Your task to perform on an android device: Open display settings Image 0: 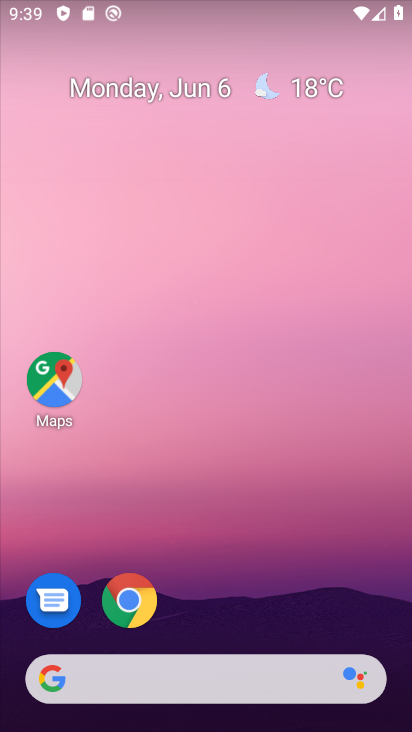
Step 0: drag from (289, 563) to (223, 19)
Your task to perform on an android device: Open display settings Image 1: 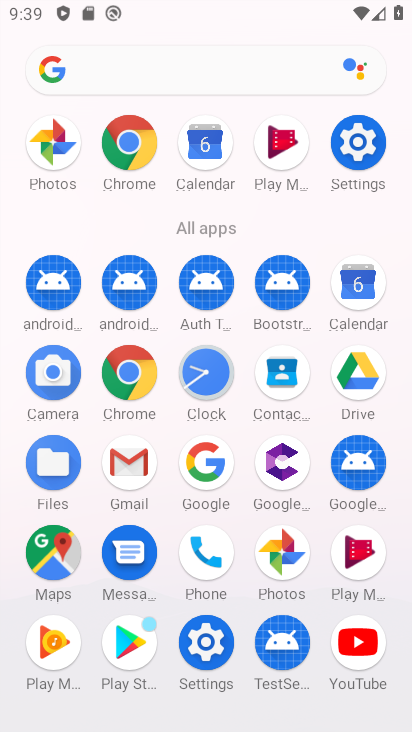
Step 1: click (200, 639)
Your task to perform on an android device: Open display settings Image 2: 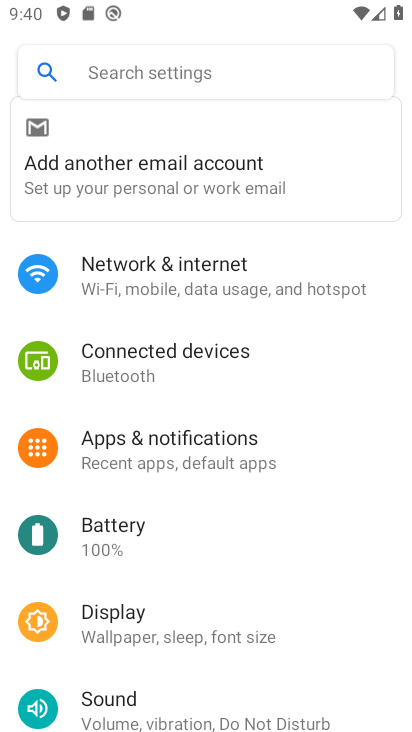
Step 2: click (136, 625)
Your task to perform on an android device: Open display settings Image 3: 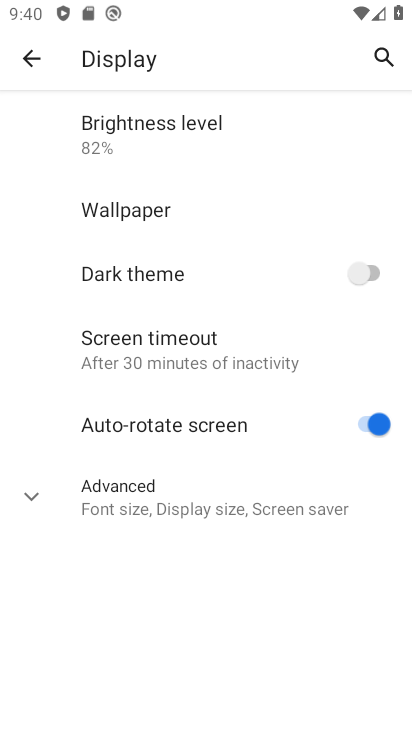
Step 3: click (54, 502)
Your task to perform on an android device: Open display settings Image 4: 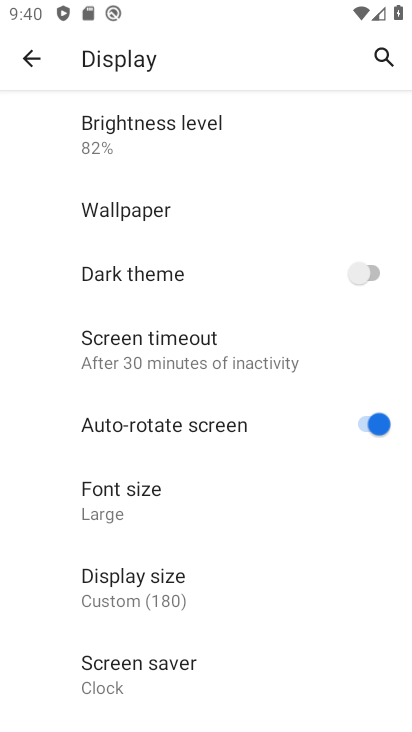
Step 4: task complete